Your task to perform on an android device: check google app version Image 0: 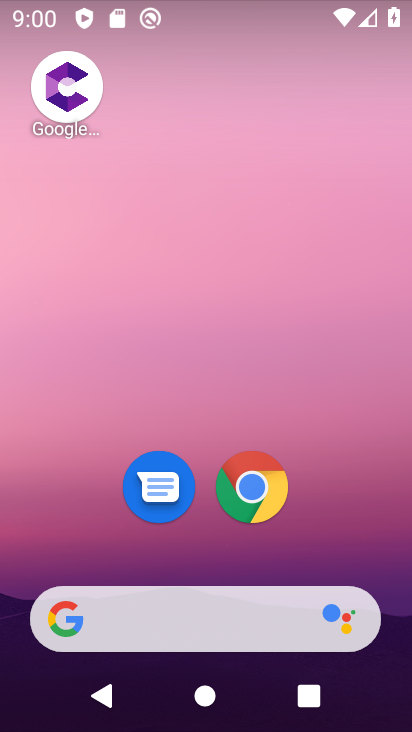
Step 0: drag from (237, 728) to (247, 259)
Your task to perform on an android device: check google app version Image 1: 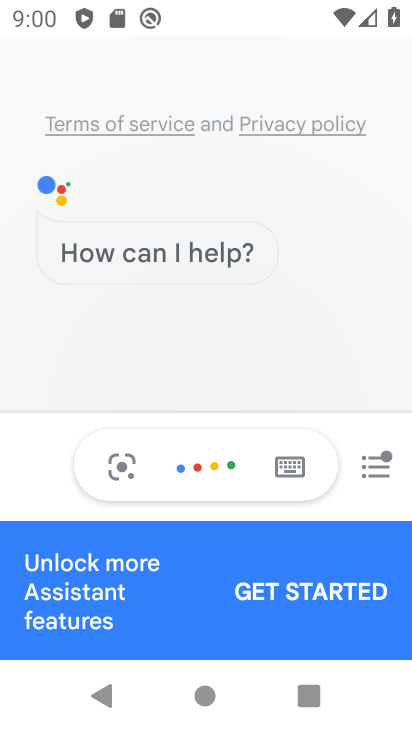
Step 1: press home button
Your task to perform on an android device: check google app version Image 2: 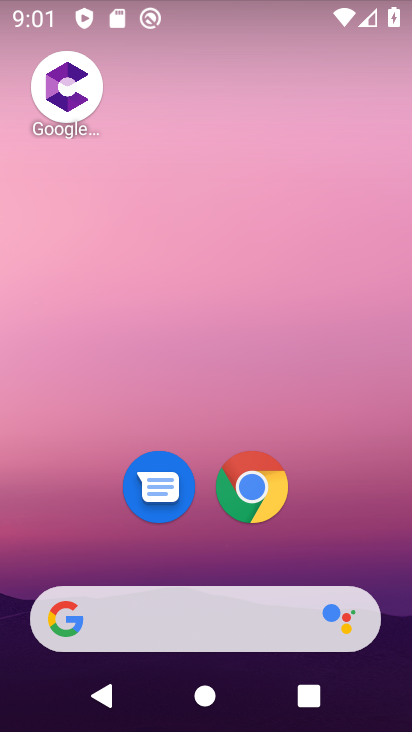
Step 2: drag from (232, 722) to (232, 161)
Your task to perform on an android device: check google app version Image 3: 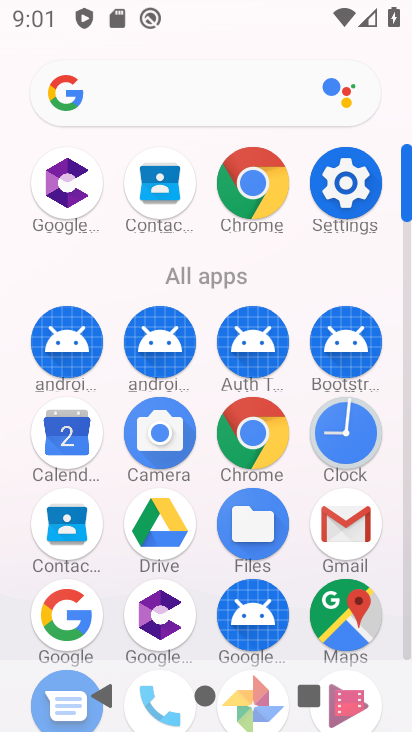
Step 3: click (68, 606)
Your task to perform on an android device: check google app version Image 4: 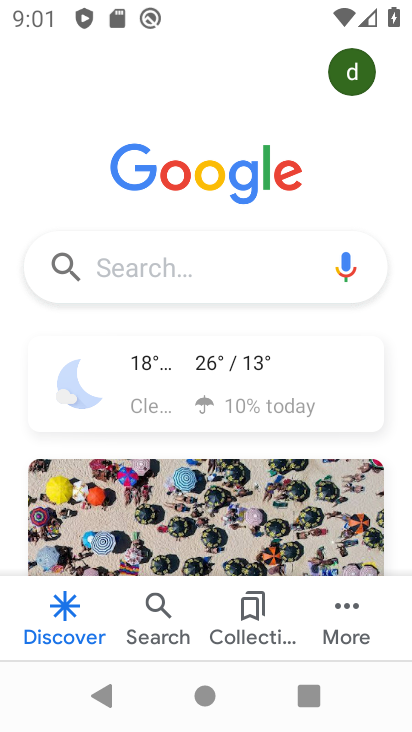
Step 4: click (350, 602)
Your task to perform on an android device: check google app version Image 5: 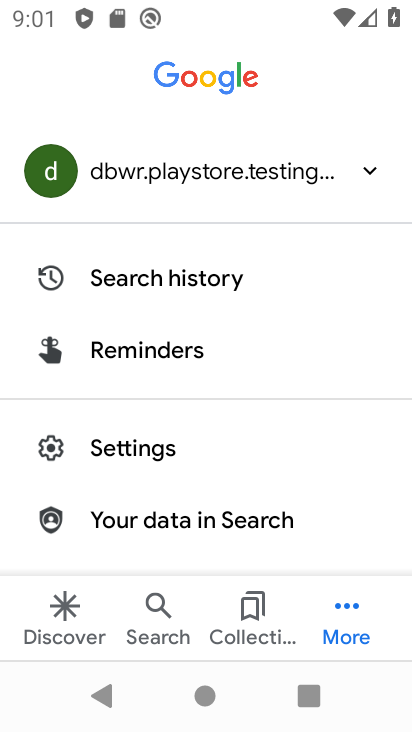
Step 5: click (116, 445)
Your task to perform on an android device: check google app version Image 6: 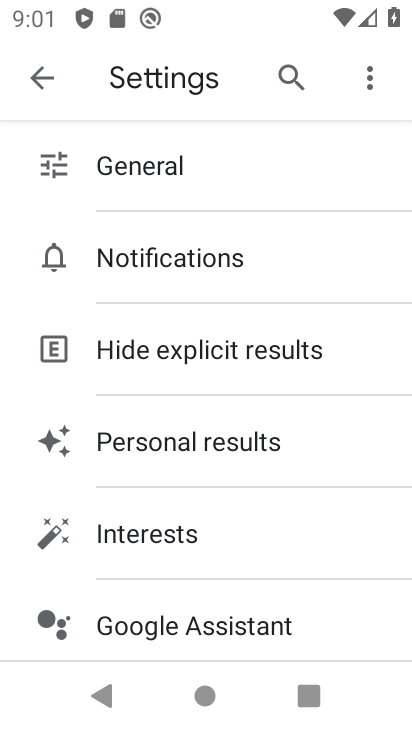
Step 6: drag from (186, 620) to (192, 256)
Your task to perform on an android device: check google app version Image 7: 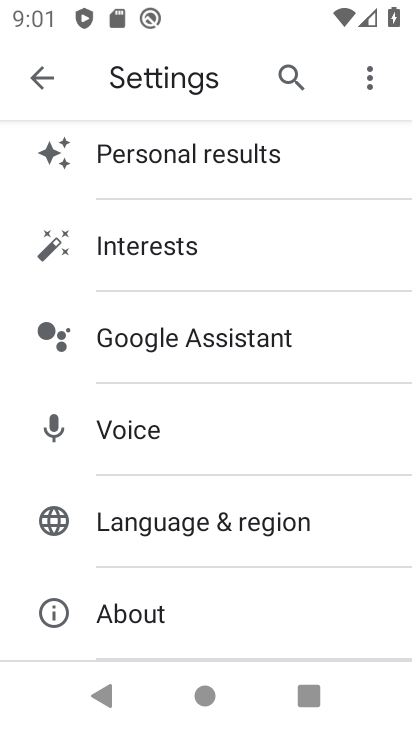
Step 7: click (130, 606)
Your task to perform on an android device: check google app version Image 8: 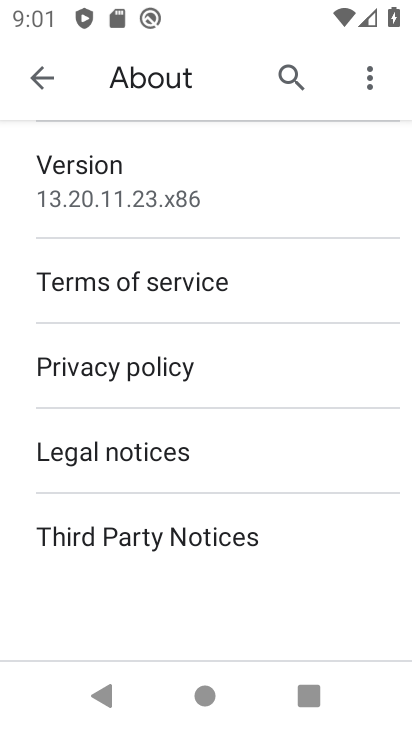
Step 8: click (94, 193)
Your task to perform on an android device: check google app version Image 9: 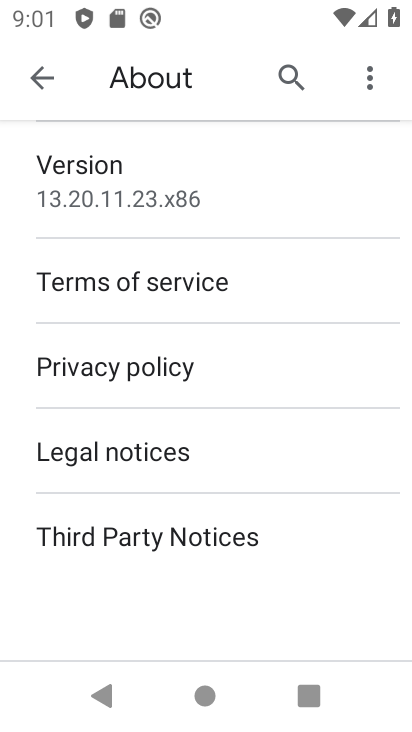
Step 9: task complete